Your task to perform on an android device: change text size in settings app Image 0: 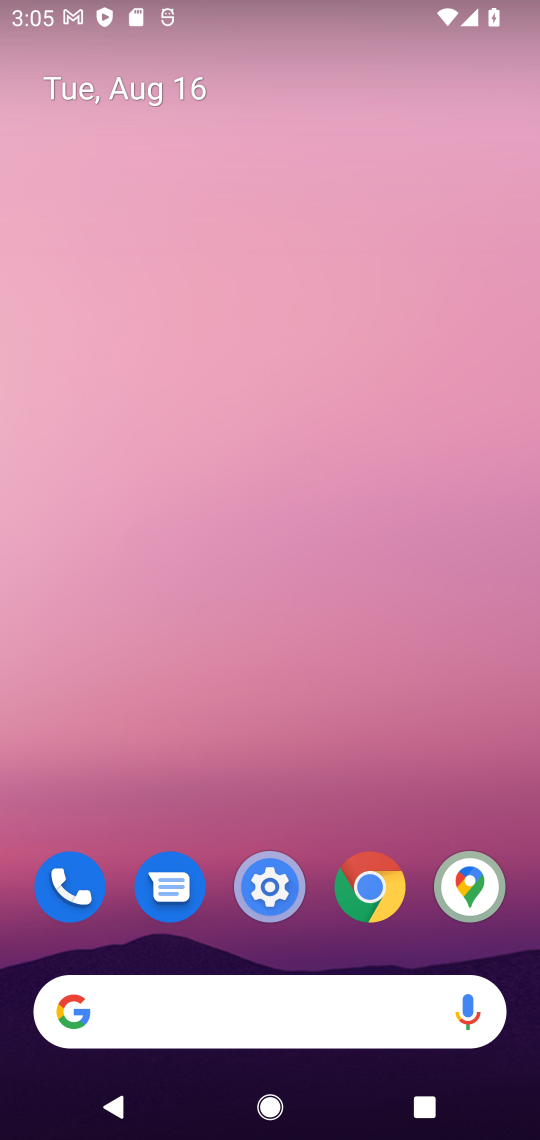
Step 0: drag from (405, 758) to (409, 52)
Your task to perform on an android device: change text size in settings app Image 1: 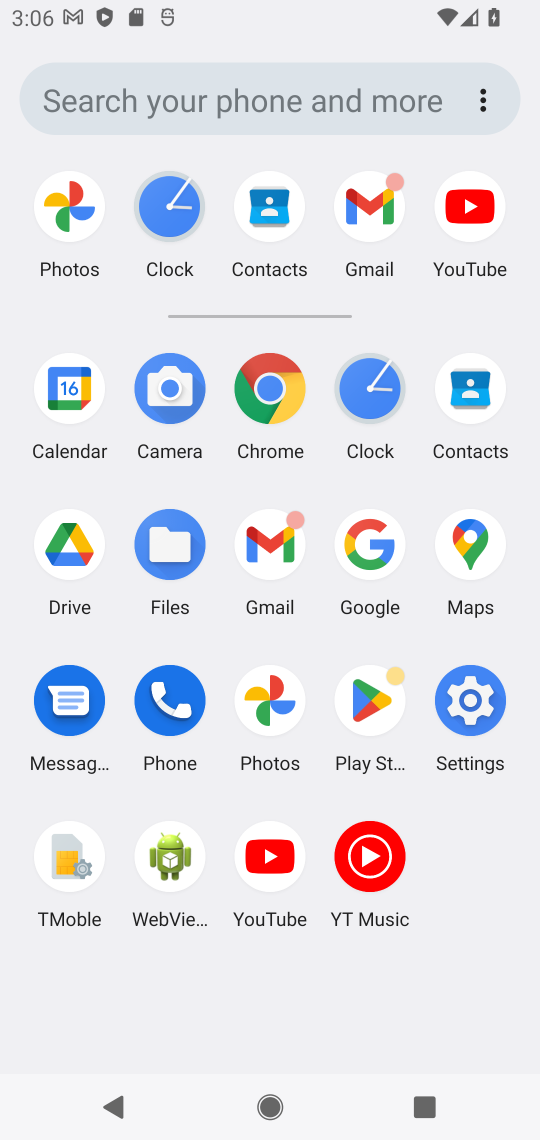
Step 1: click (487, 690)
Your task to perform on an android device: change text size in settings app Image 2: 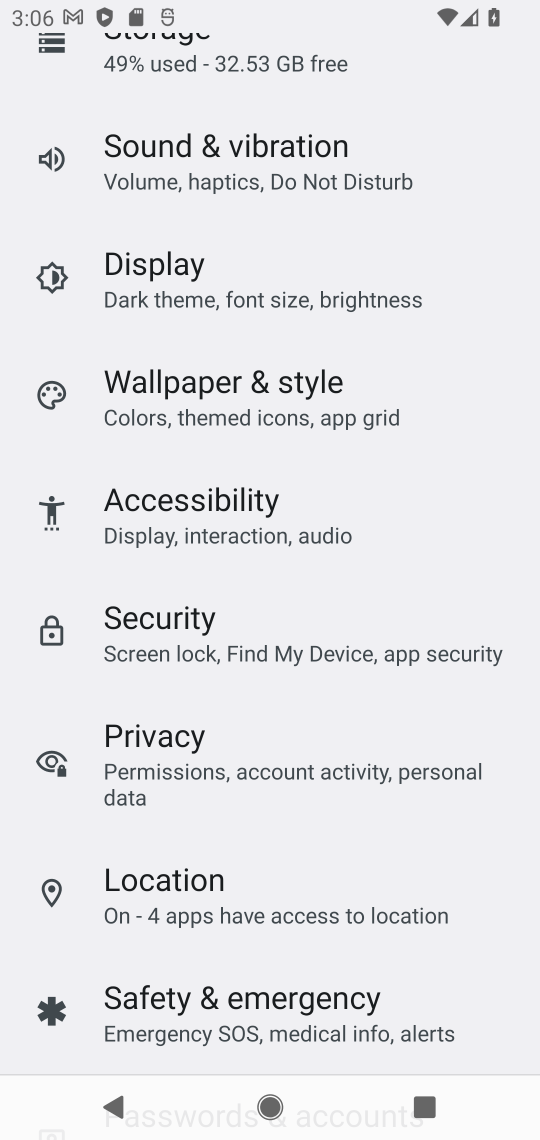
Step 2: click (216, 273)
Your task to perform on an android device: change text size in settings app Image 3: 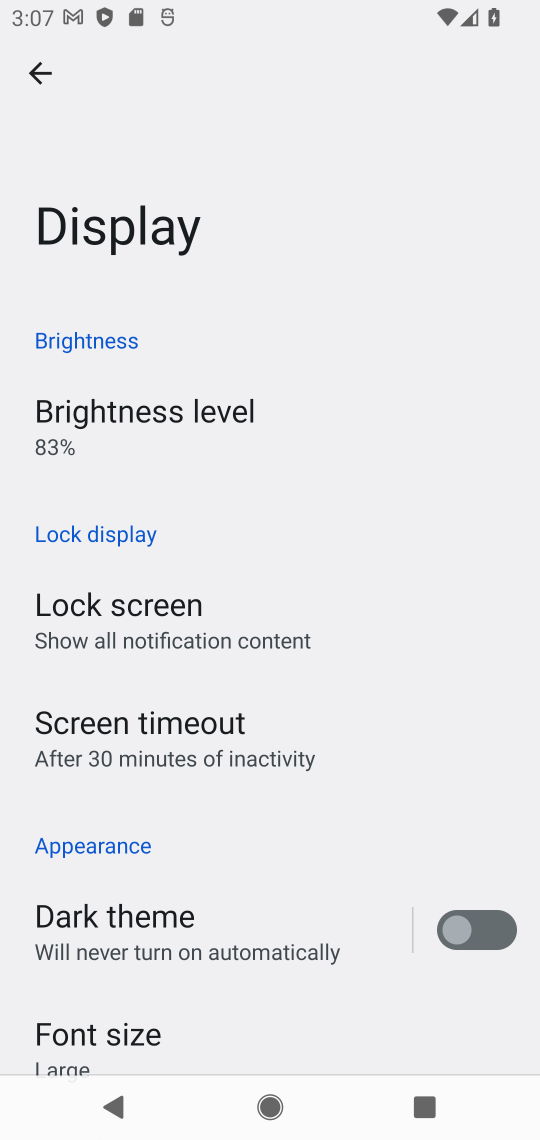
Step 3: drag from (302, 994) to (363, 208)
Your task to perform on an android device: change text size in settings app Image 4: 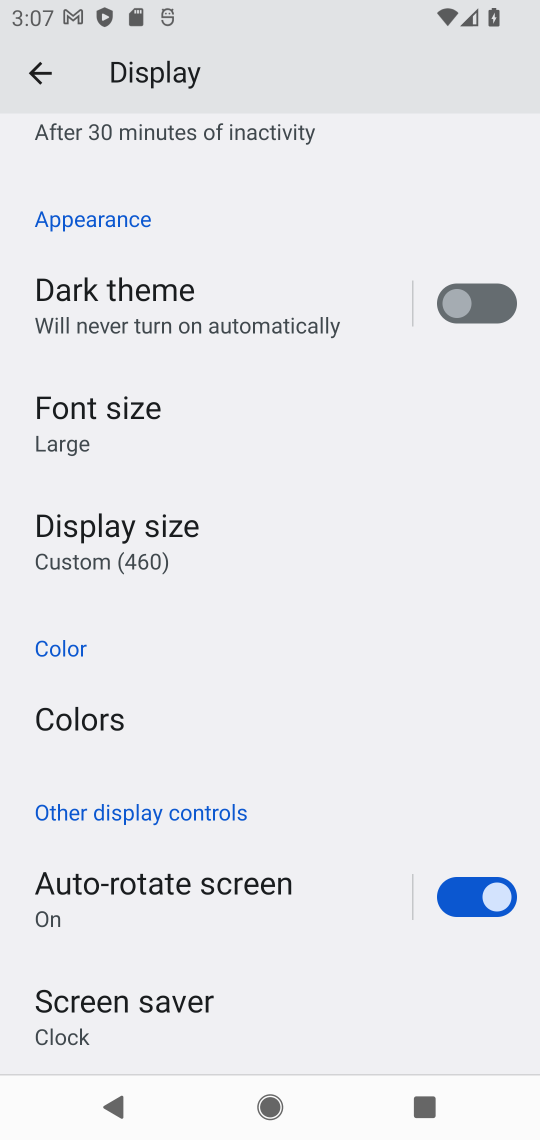
Step 4: click (150, 445)
Your task to perform on an android device: change text size in settings app Image 5: 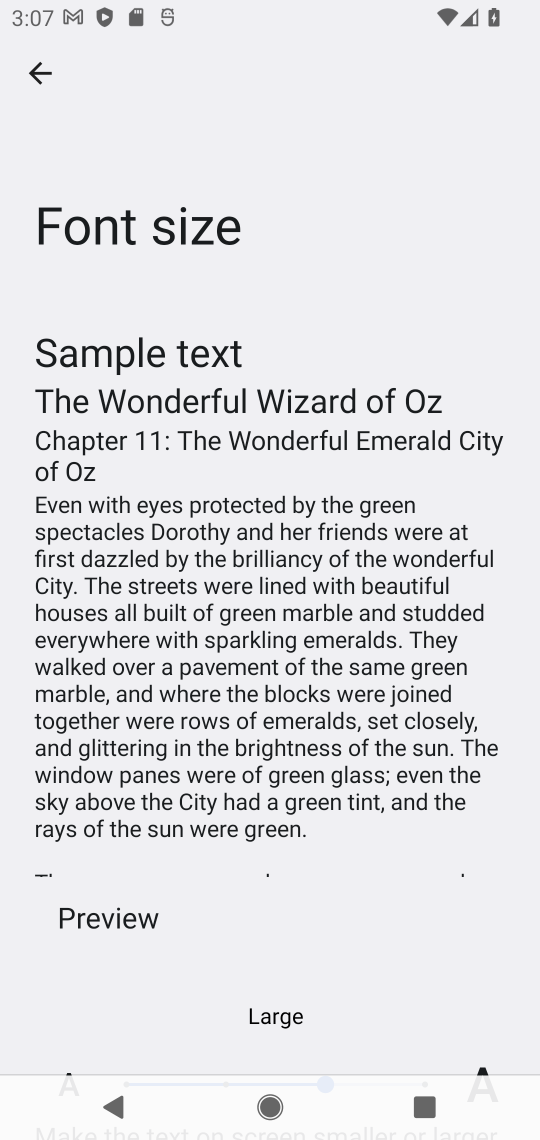
Step 5: drag from (318, 989) to (184, 486)
Your task to perform on an android device: change text size in settings app Image 6: 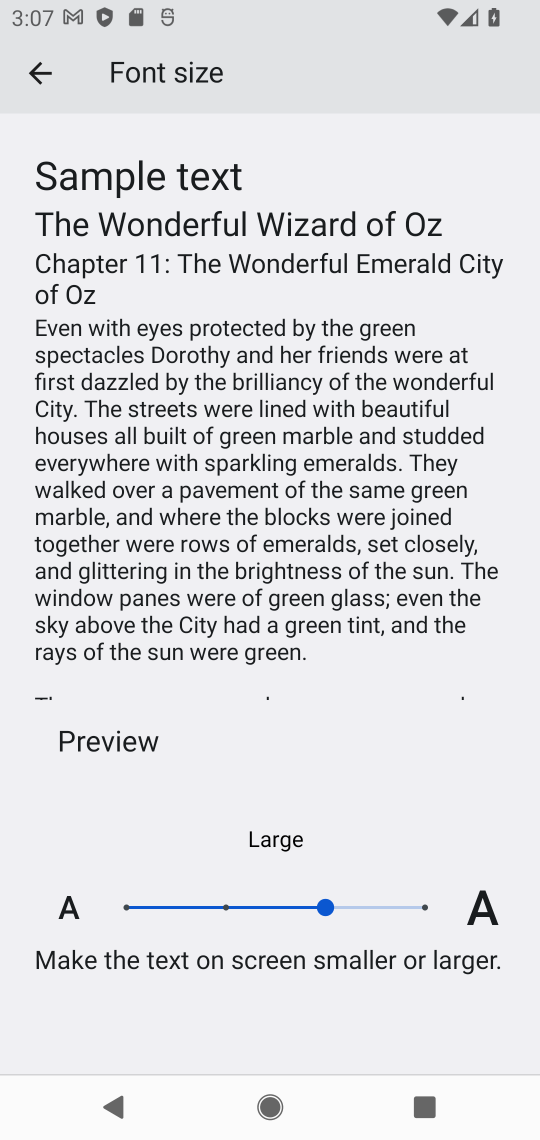
Step 6: click (222, 906)
Your task to perform on an android device: change text size in settings app Image 7: 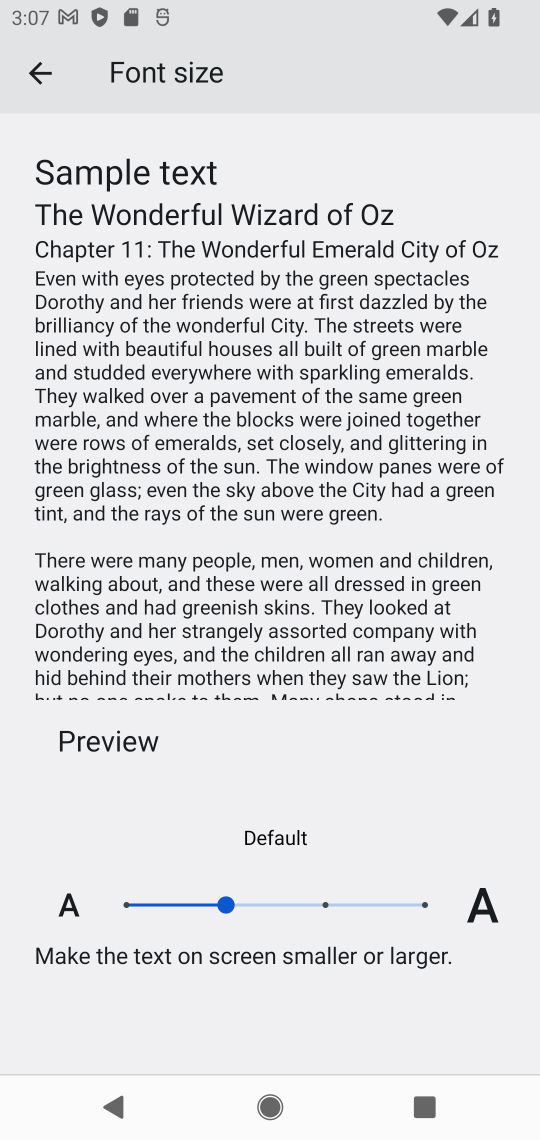
Step 7: task complete